Your task to perform on an android device: turn off notifications in google photos Image 0: 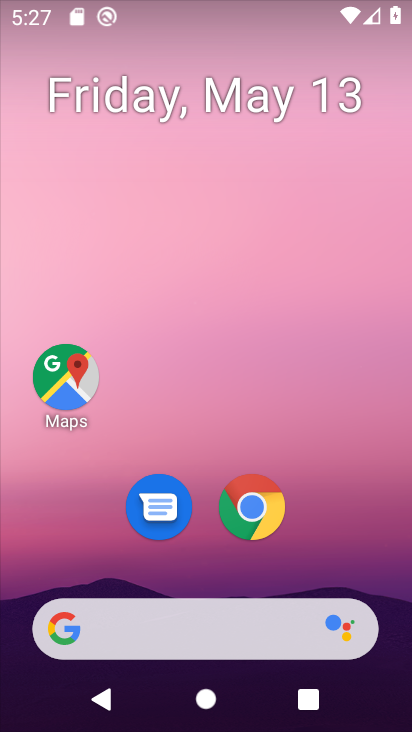
Step 0: press home button
Your task to perform on an android device: turn off notifications in google photos Image 1: 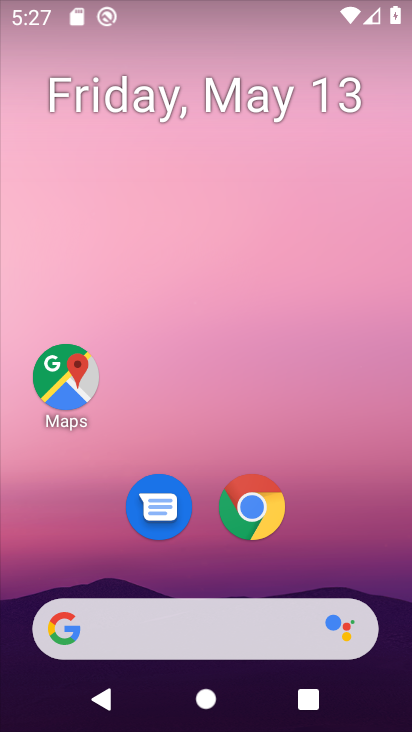
Step 1: drag from (324, 557) to (197, 131)
Your task to perform on an android device: turn off notifications in google photos Image 2: 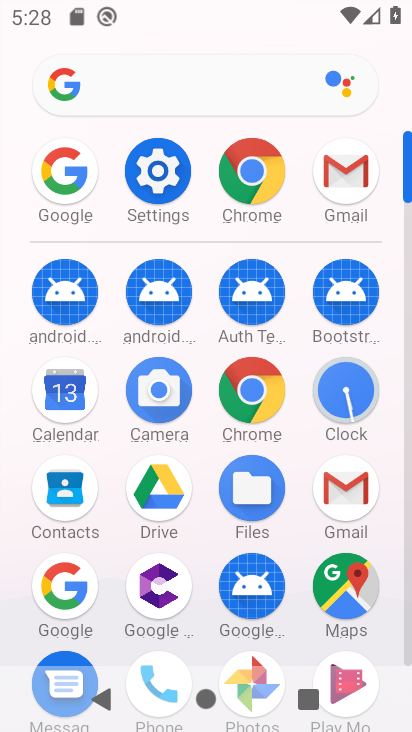
Step 2: drag from (210, 601) to (191, 347)
Your task to perform on an android device: turn off notifications in google photos Image 3: 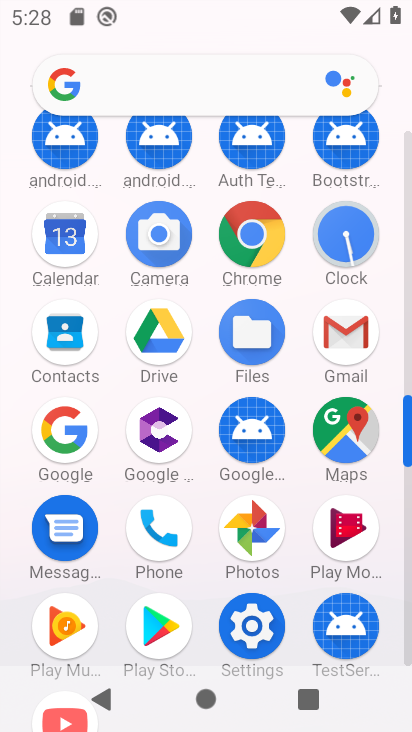
Step 3: click (243, 531)
Your task to perform on an android device: turn off notifications in google photos Image 4: 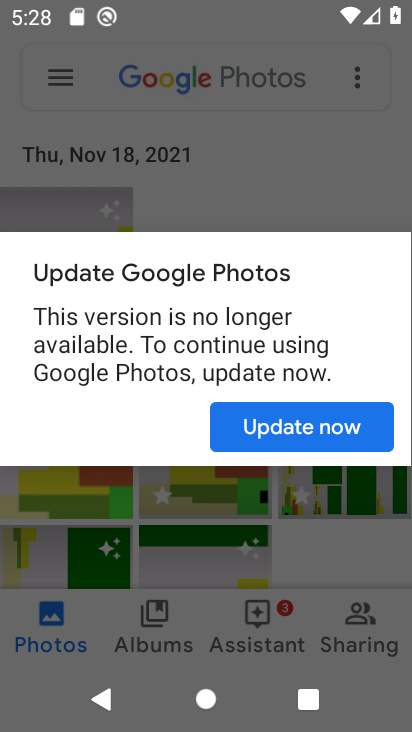
Step 4: click (330, 423)
Your task to perform on an android device: turn off notifications in google photos Image 5: 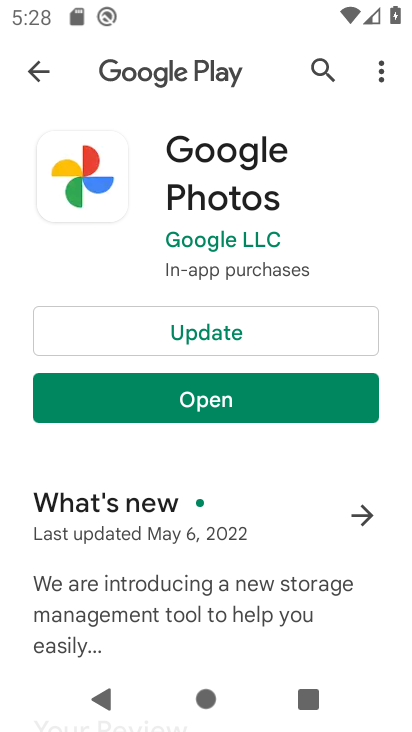
Step 5: click (215, 332)
Your task to perform on an android device: turn off notifications in google photos Image 6: 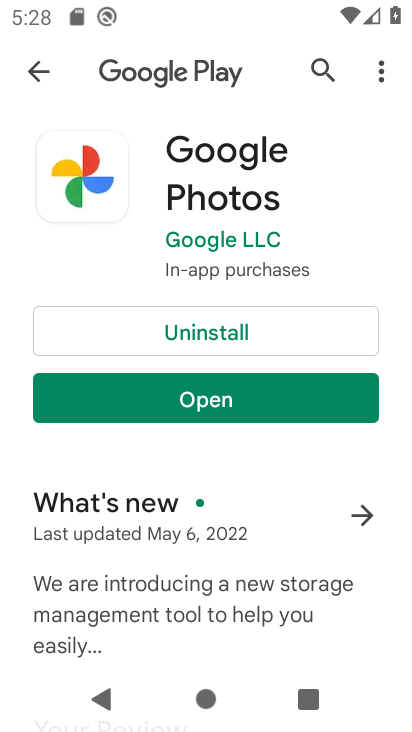
Step 6: click (244, 393)
Your task to perform on an android device: turn off notifications in google photos Image 7: 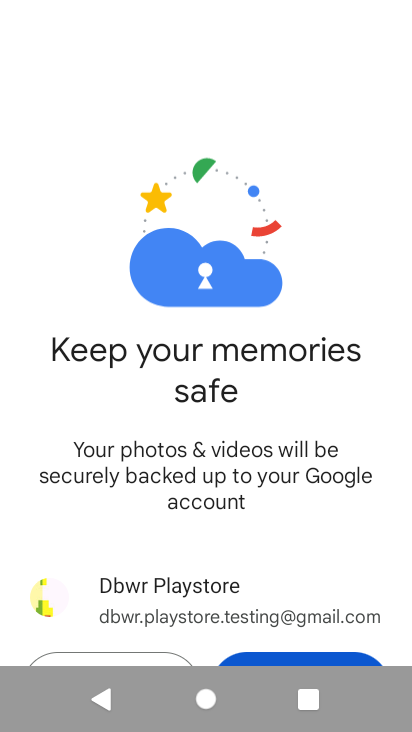
Step 7: drag from (253, 548) to (248, 213)
Your task to perform on an android device: turn off notifications in google photos Image 8: 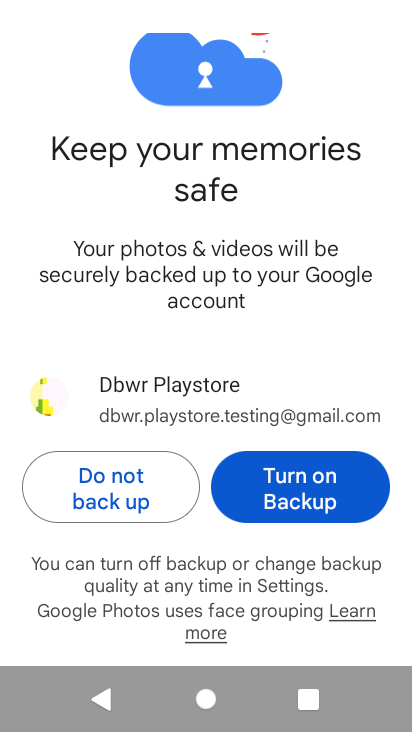
Step 8: click (159, 500)
Your task to perform on an android device: turn off notifications in google photos Image 9: 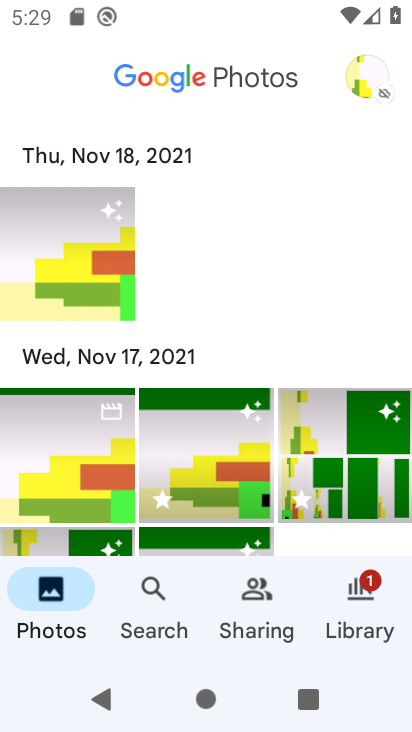
Step 9: click (363, 77)
Your task to perform on an android device: turn off notifications in google photos Image 10: 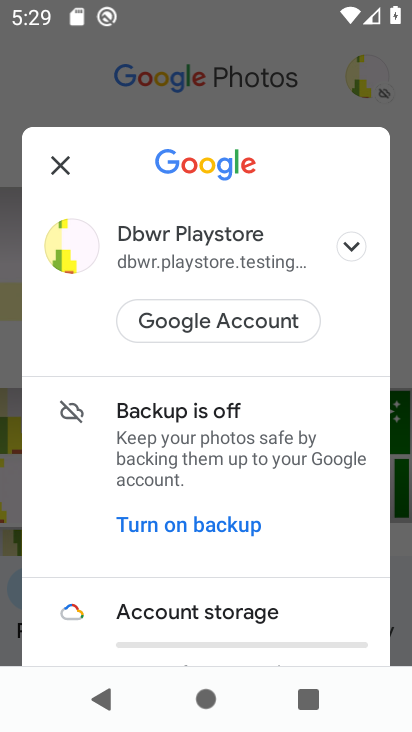
Step 10: drag from (246, 599) to (232, 272)
Your task to perform on an android device: turn off notifications in google photos Image 11: 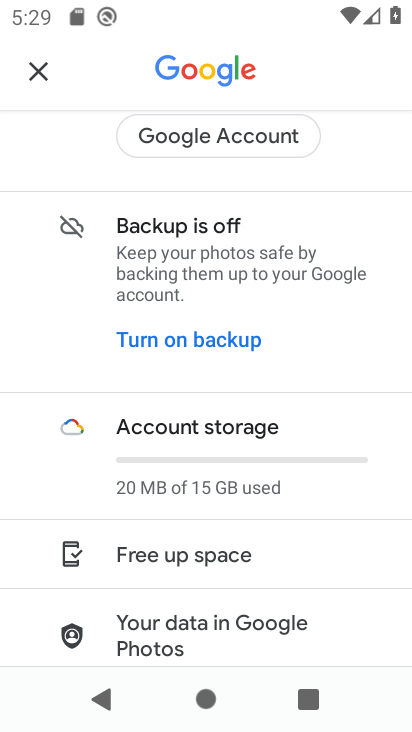
Step 11: drag from (231, 580) to (259, 227)
Your task to perform on an android device: turn off notifications in google photos Image 12: 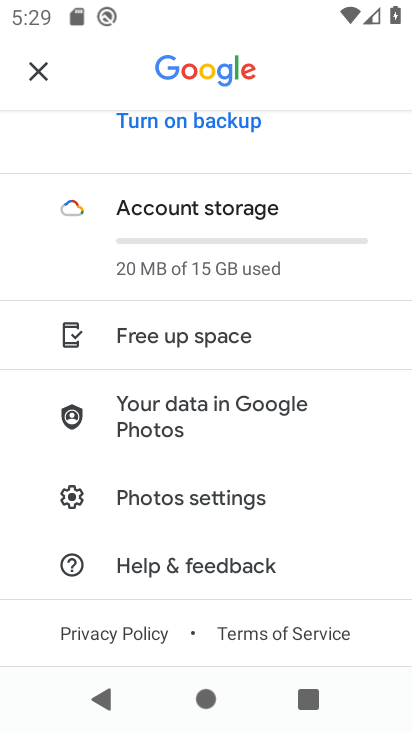
Step 12: click (194, 502)
Your task to perform on an android device: turn off notifications in google photos Image 13: 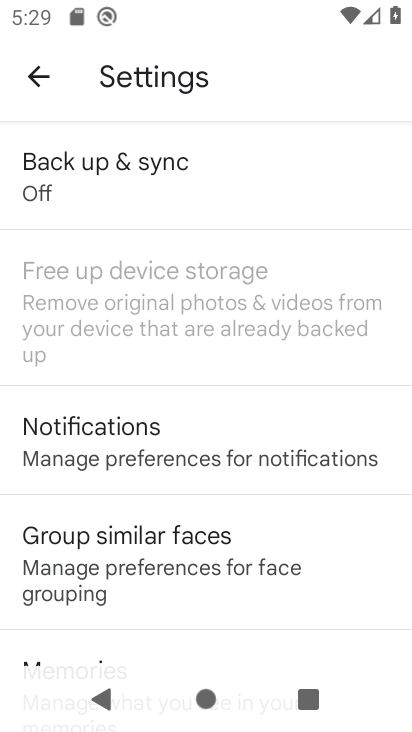
Step 13: click (136, 435)
Your task to perform on an android device: turn off notifications in google photos Image 14: 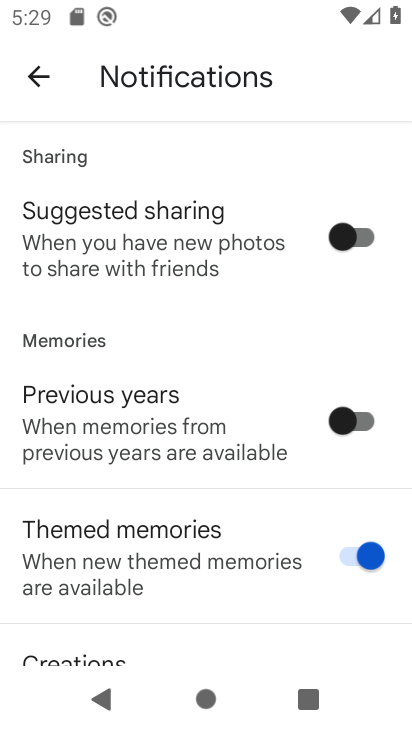
Step 14: task complete